Your task to perform on an android device: find which apps use the phone's location Image 0: 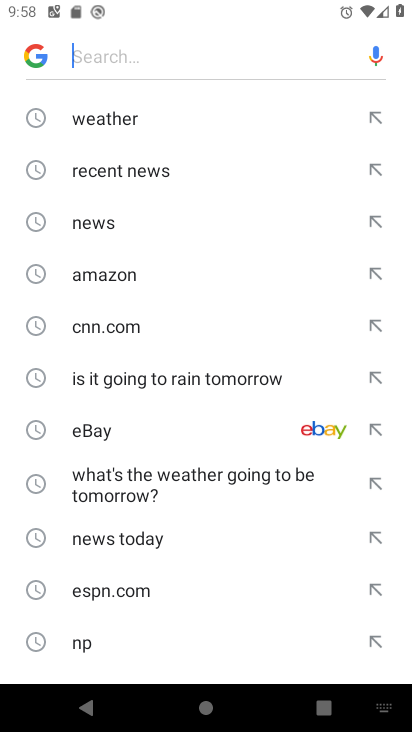
Step 0: press home button
Your task to perform on an android device: find which apps use the phone's location Image 1: 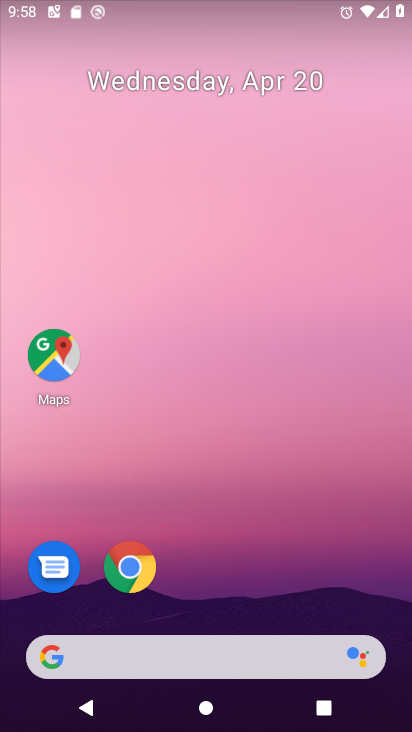
Step 1: drag from (366, 537) to (382, 233)
Your task to perform on an android device: find which apps use the phone's location Image 2: 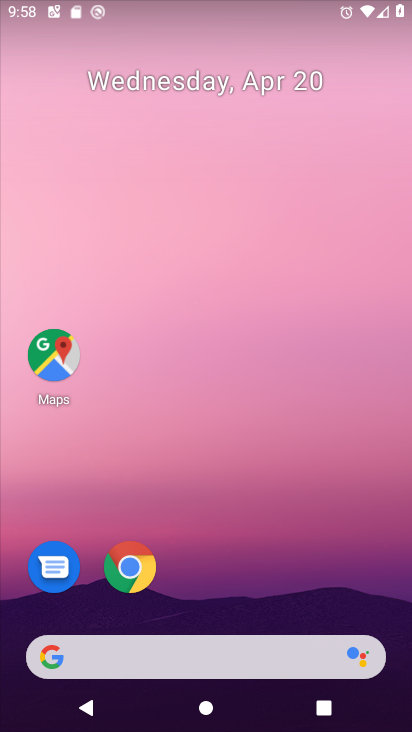
Step 2: drag from (309, 549) to (325, 134)
Your task to perform on an android device: find which apps use the phone's location Image 3: 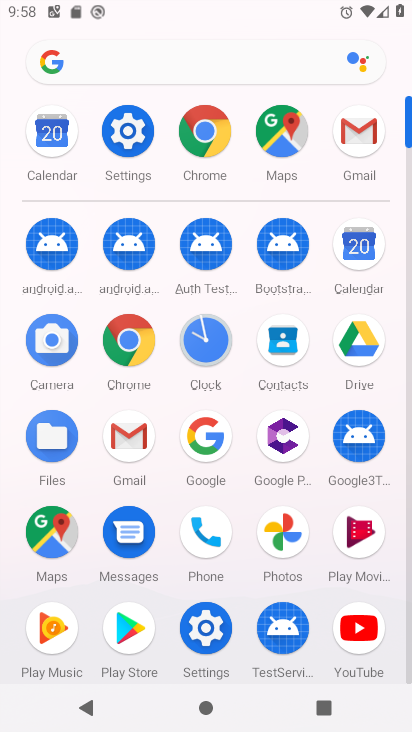
Step 3: click (202, 632)
Your task to perform on an android device: find which apps use the phone's location Image 4: 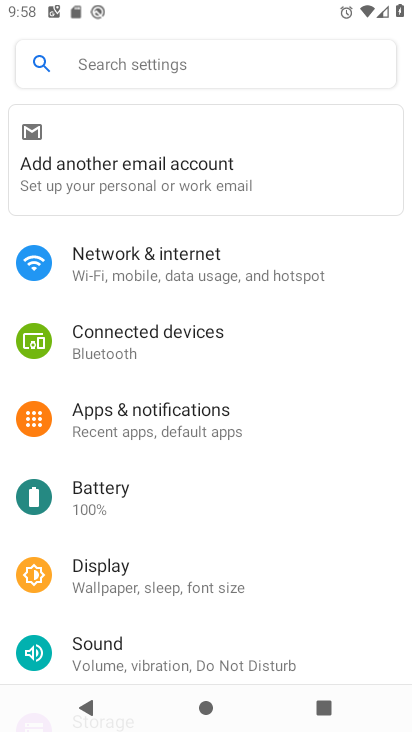
Step 4: drag from (356, 562) to (349, 403)
Your task to perform on an android device: find which apps use the phone's location Image 5: 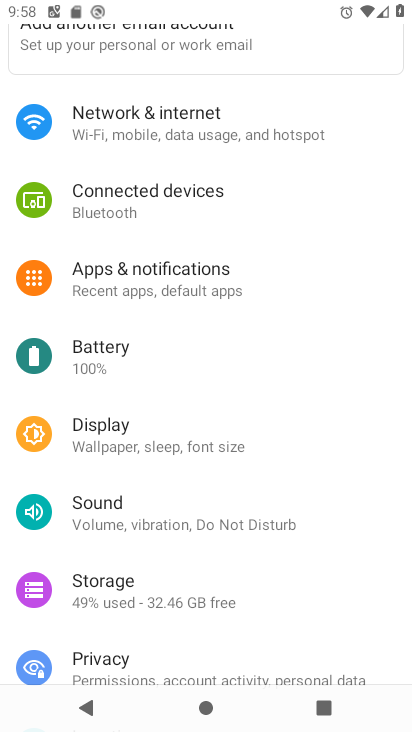
Step 5: drag from (340, 593) to (345, 397)
Your task to perform on an android device: find which apps use the phone's location Image 6: 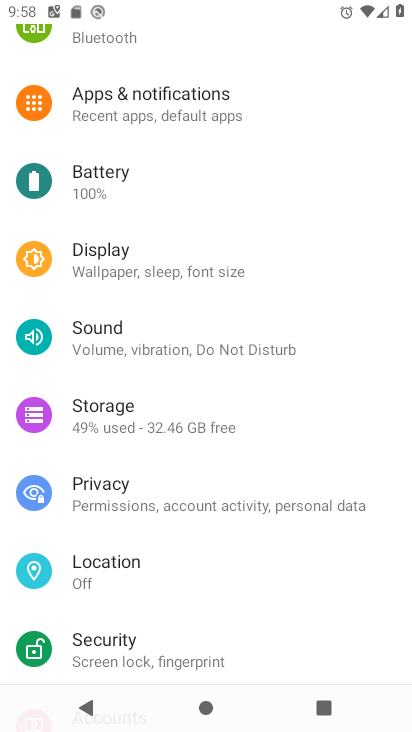
Step 6: drag from (355, 608) to (358, 388)
Your task to perform on an android device: find which apps use the phone's location Image 7: 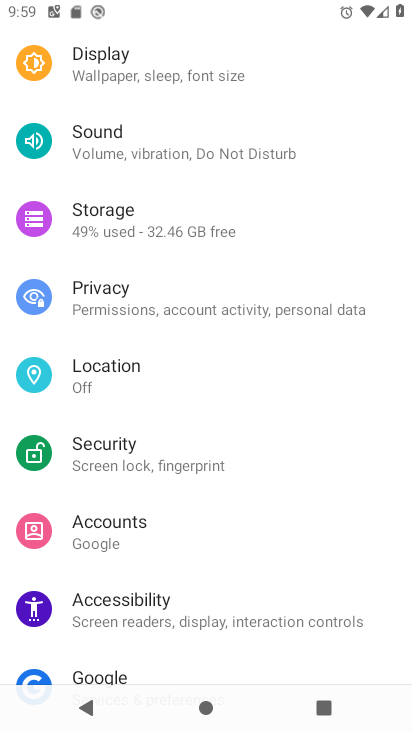
Step 7: drag from (363, 531) to (347, 382)
Your task to perform on an android device: find which apps use the phone's location Image 8: 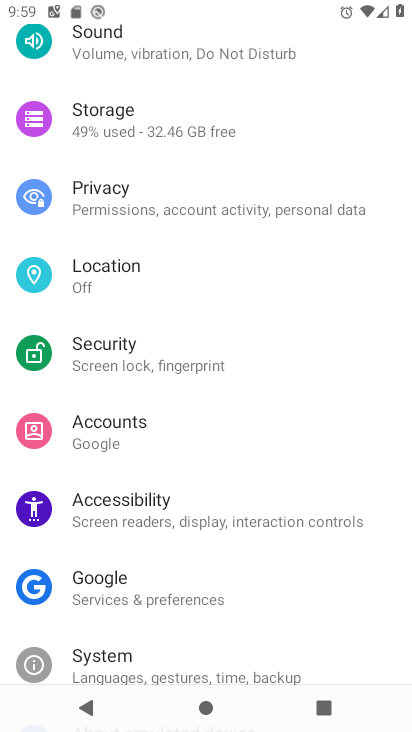
Step 8: click (122, 285)
Your task to perform on an android device: find which apps use the phone's location Image 9: 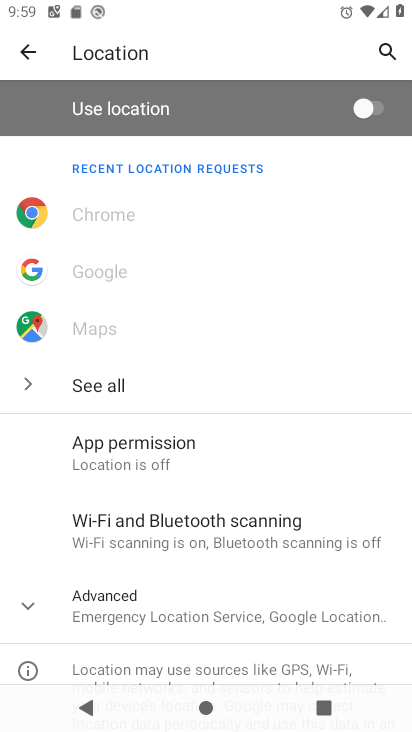
Step 9: click (144, 462)
Your task to perform on an android device: find which apps use the phone's location Image 10: 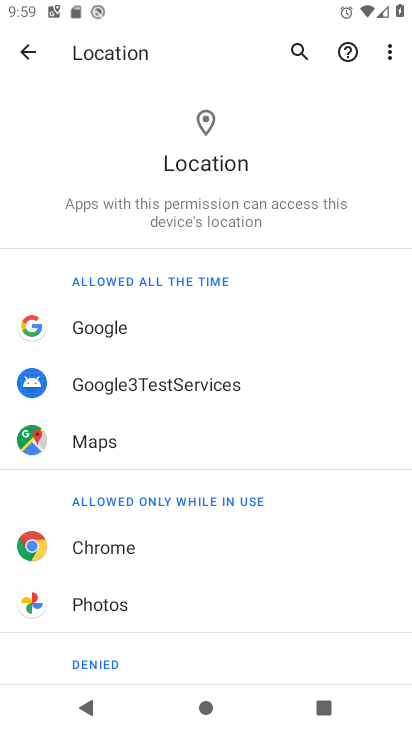
Step 10: drag from (312, 563) to (319, 337)
Your task to perform on an android device: find which apps use the phone's location Image 11: 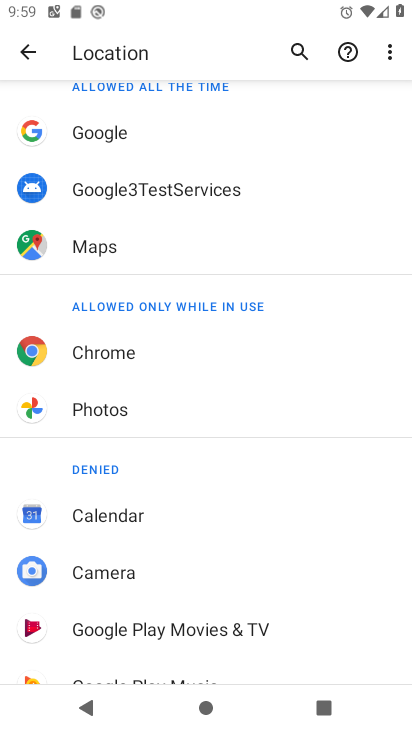
Step 11: drag from (320, 519) to (347, 312)
Your task to perform on an android device: find which apps use the phone's location Image 12: 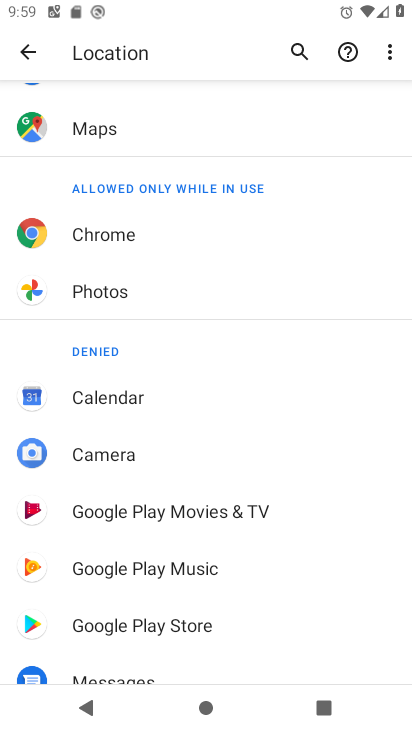
Step 12: drag from (323, 594) to (347, 383)
Your task to perform on an android device: find which apps use the phone's location Image 13: 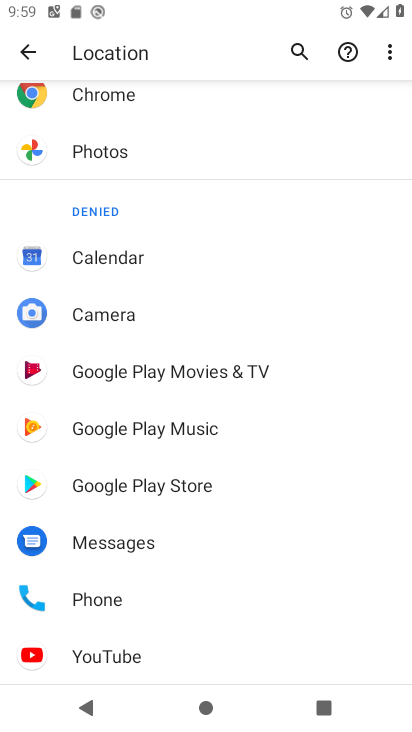
Step 13: drag from (328, 527) to (343, 245)
Your task to perform on an android device: find which apps use the phone's location Image 14: 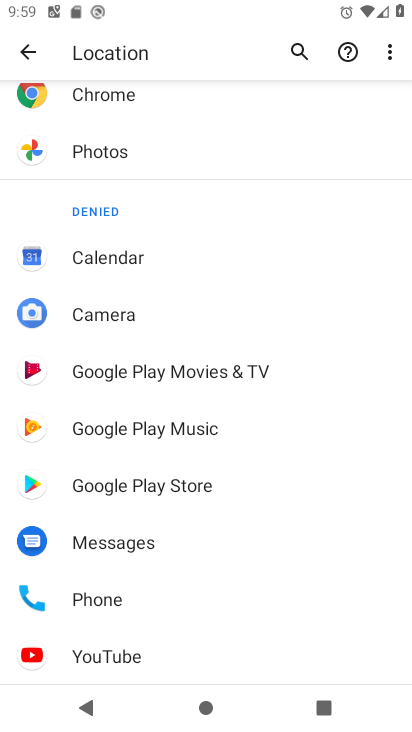
Step 14: drag from (319, 573) to (331, 298)
Your task to perform on an android device: find which apps use the phone's location Image 15: 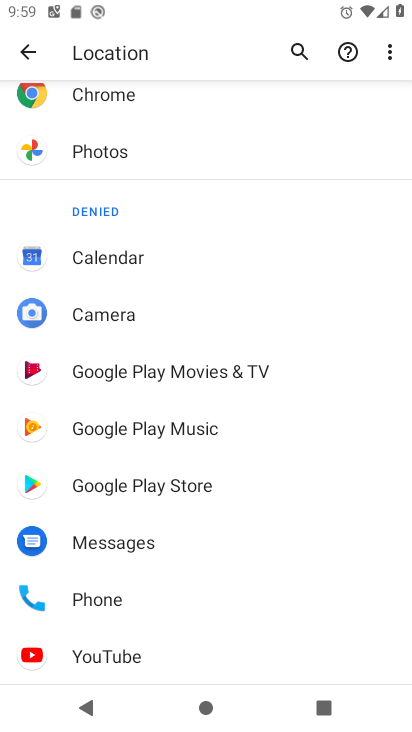
Step 15: drag from (278, 579) to (311, 330)
Your task to perform on an android device: find which apps use the phone's location Image 16: 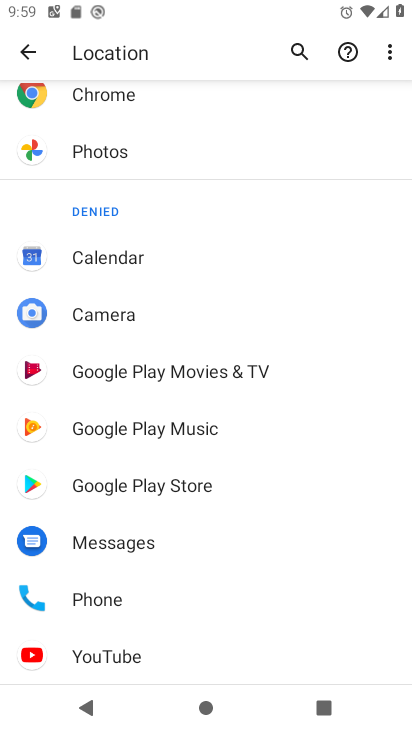
Step 16: click (111, 136)
Your task to perform on an android device: find which apps use the phone's location Image 17: 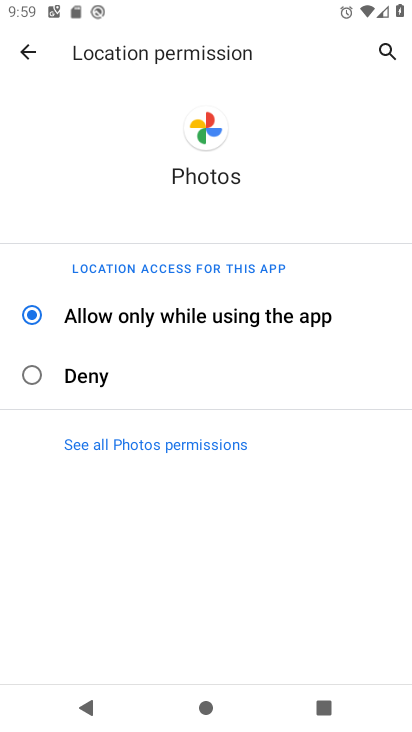
Step 17: task complete